Your task to perform on an android device: open a bookmark in the chrome app Image 0: 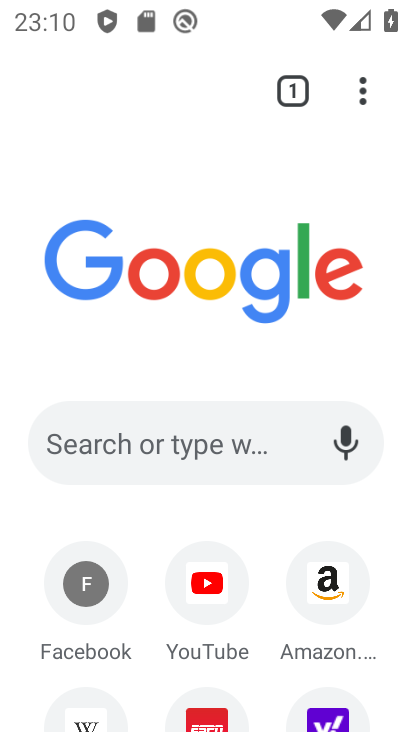
Step 0: click (365, 90)
Your task to perform on an android device: open a bookmark in the chrome app Image 1: 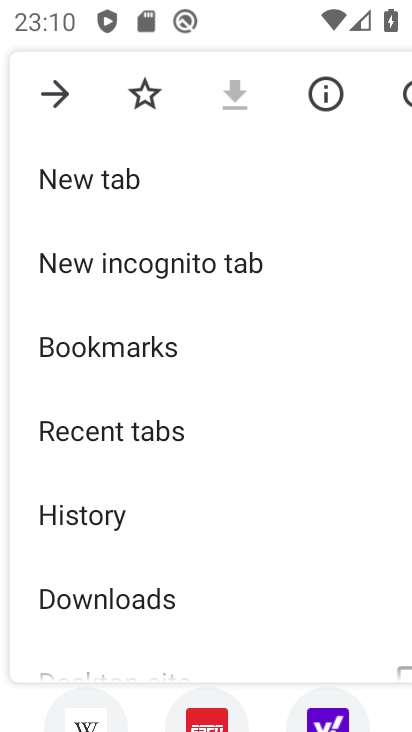
Step 1: click (165, 344)
Your task to perform on an android device: open a bookmark in the chrome app Image 2: 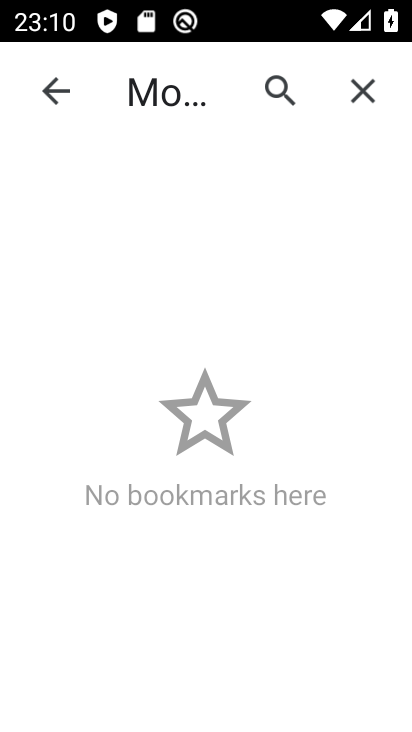
Step 2: task complete